Your task to perform on an android device: turn off location history Image 0: 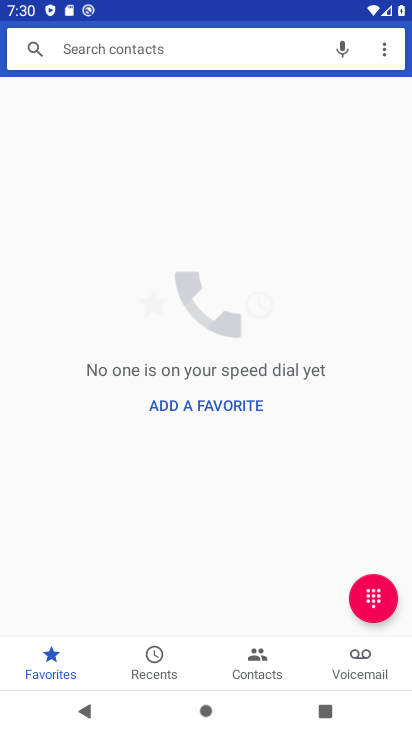
Step 0: press home button
Your task to perform on an android device: turn off location history Image 1: 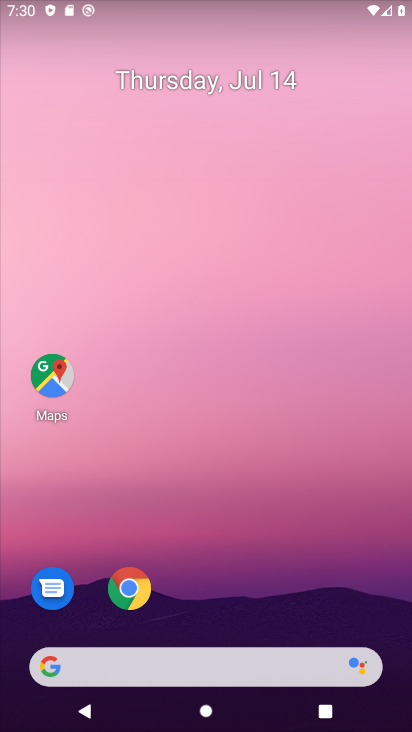
Step 1: drag from (178, 645) to (293, 199)
Your task to perform on an android device: turn off location history Image 2: 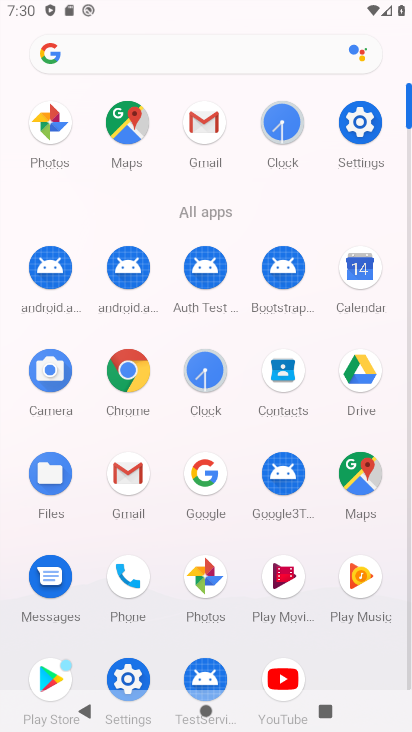
Step 2: click (356, 116)
Your task to perform on an android device: turn off location history Image 3: 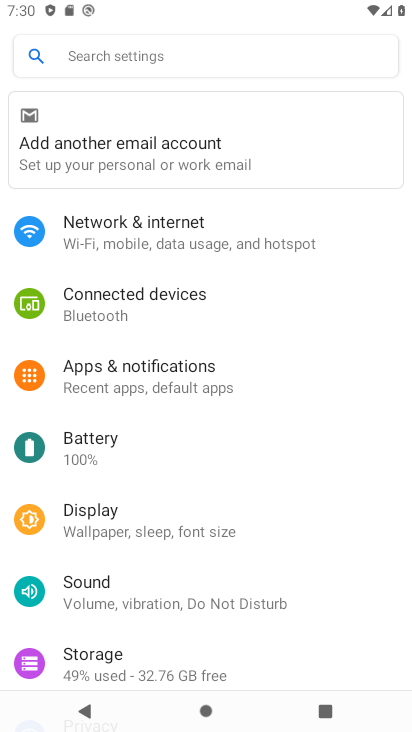
Step 3: drag from (205, 460) to (213, 230)
Your task to perform on an android device: turn off location history Image 4: 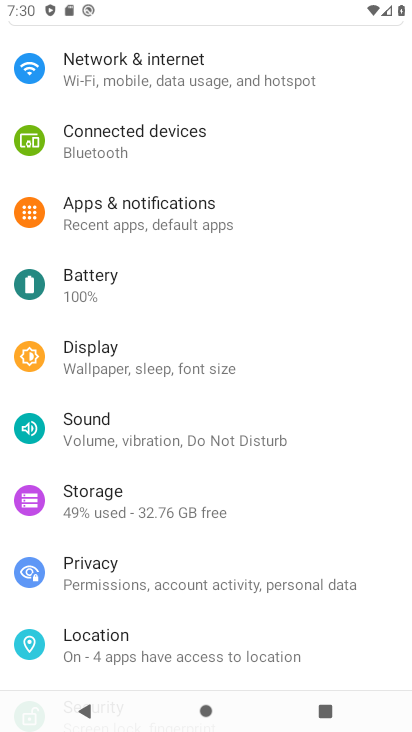
Step 4: click (116, 633)
Your task to perform on an android device: turn off location history Image 5: 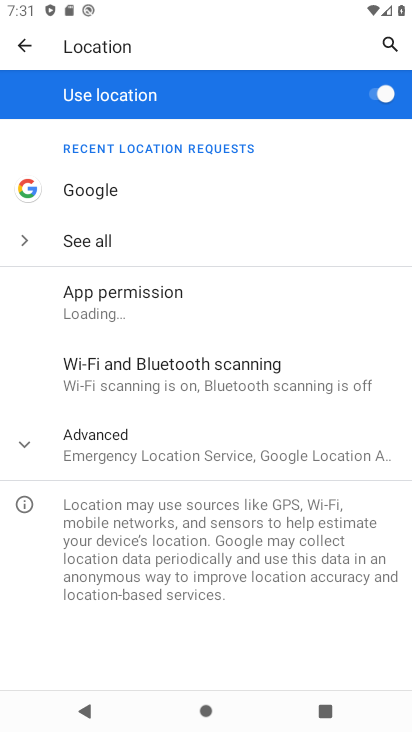
Step 5: click (31, 443)
Your task to perform on an android device: turn off location history Image 6: 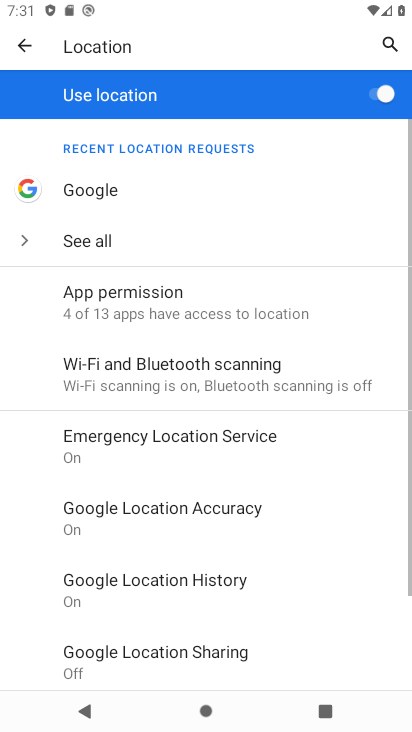
Step 6: click (184, 591)
Your task to perform on an android device: turn off location history Image 7: 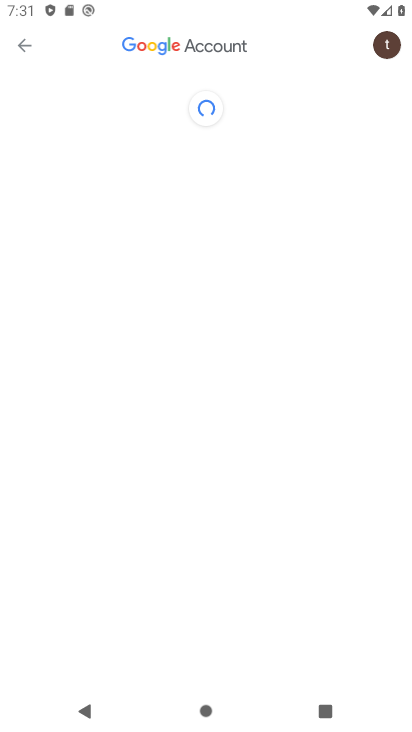
Step 7: drag from (165, 542) to (176, 198)
Your task to perform on an android device: turn off location history Image 8: 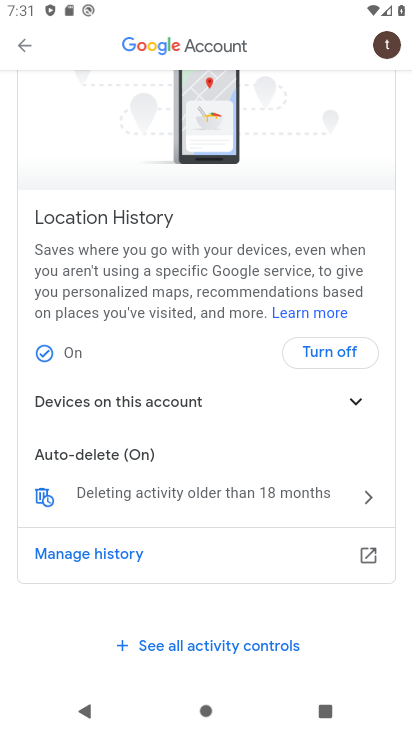
Step 8: click (339, 363)
Your task to perform on an android device: turn off location history Image 9: 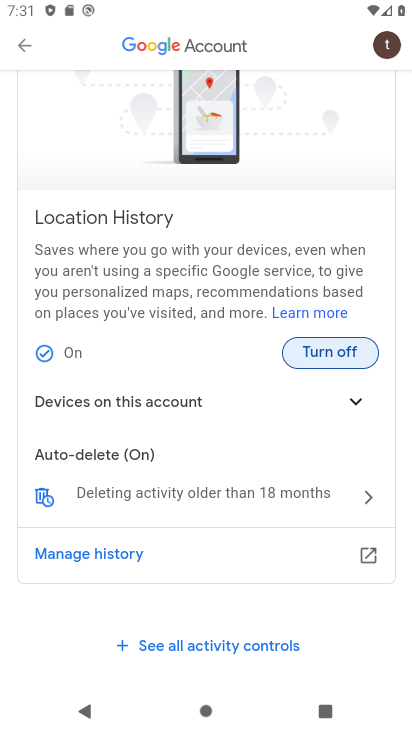
Step 9: task complete